Your task to perform on an android device: open app "Duolingo: language lessons" (install if not already installed) and go to login screen Image 0: 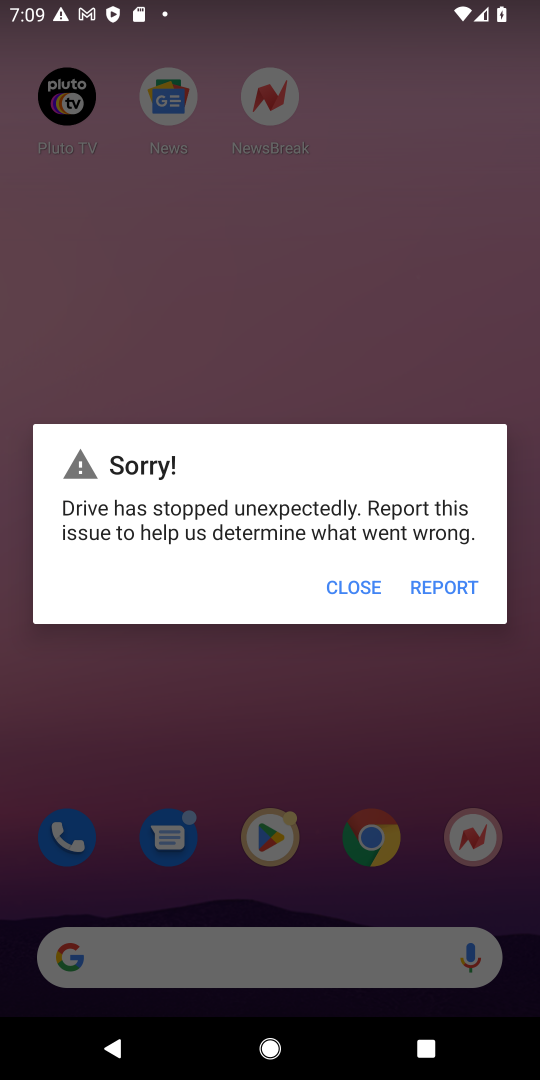
Step 0: click (362, 577)
Your task to perform on an android device: open app "Duolingo: language lessons" (install if not already installed) and go to login screen Image 1: 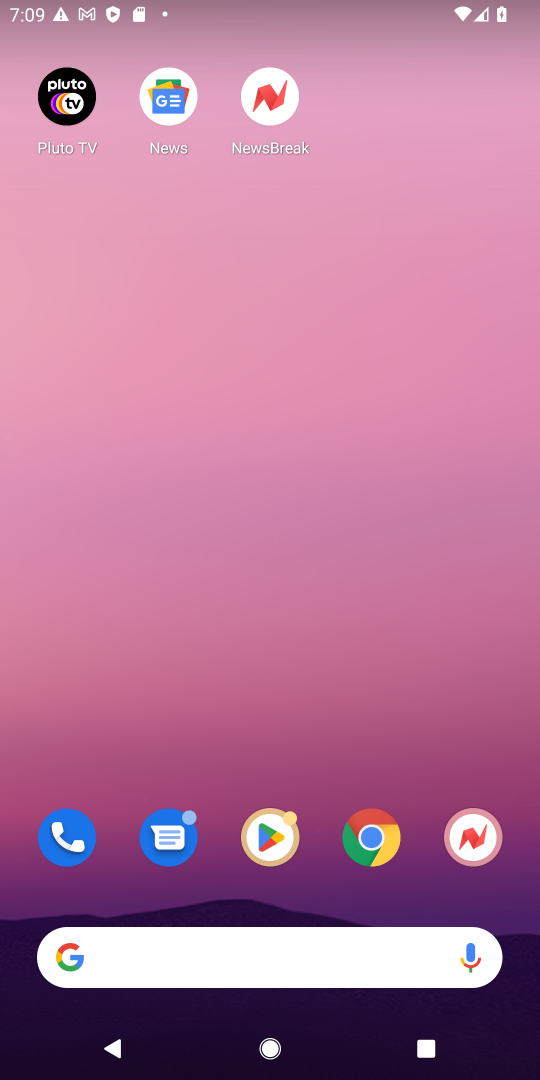
Step 1: drag from (215, 885) to (276, 115)
Your task to perform on an android device: open app "Duolingo: language lessons" (install if not already installed) and go to login screen Image 2: 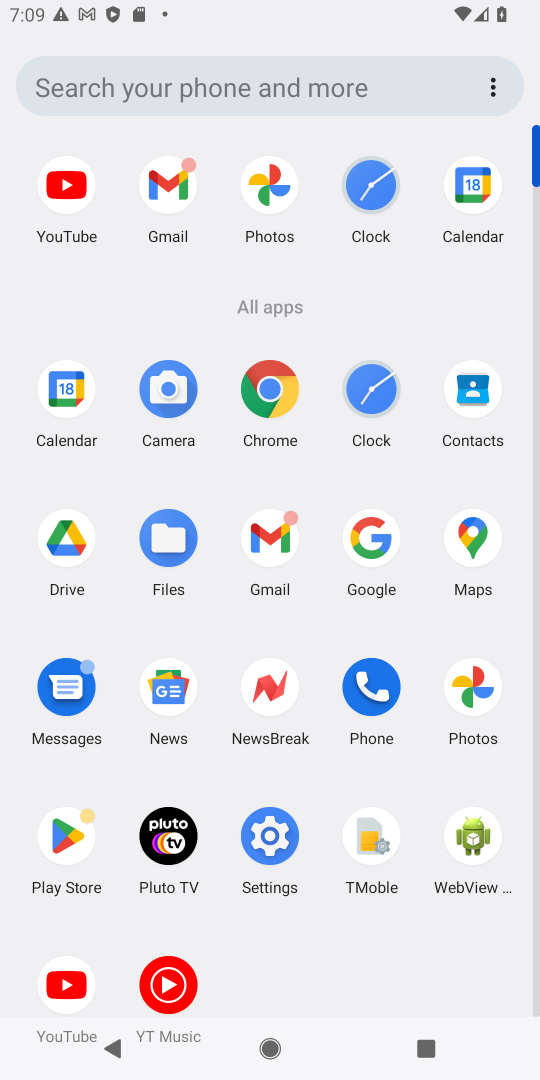
Step 2: click (56, 865)
Your task to perform on an android device: open app "Duolingo: language lessons" (install if not already installed) and go to login screen Image 3: 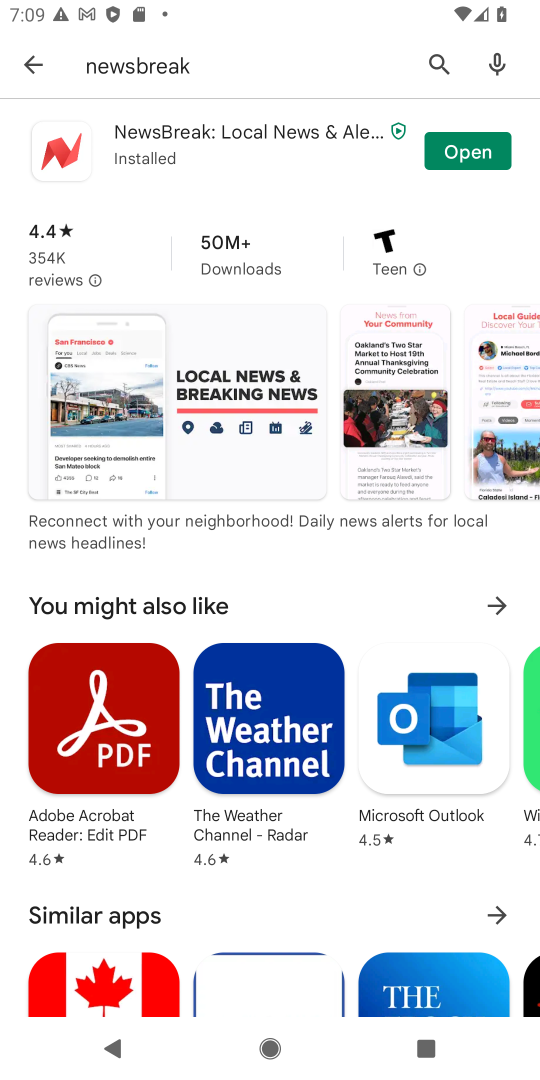
Step 3: click (219, 72)
Your task to perform on an android device: open app "Duolingo: language lessons" (install if not already installed) and go to login screen Image 4: 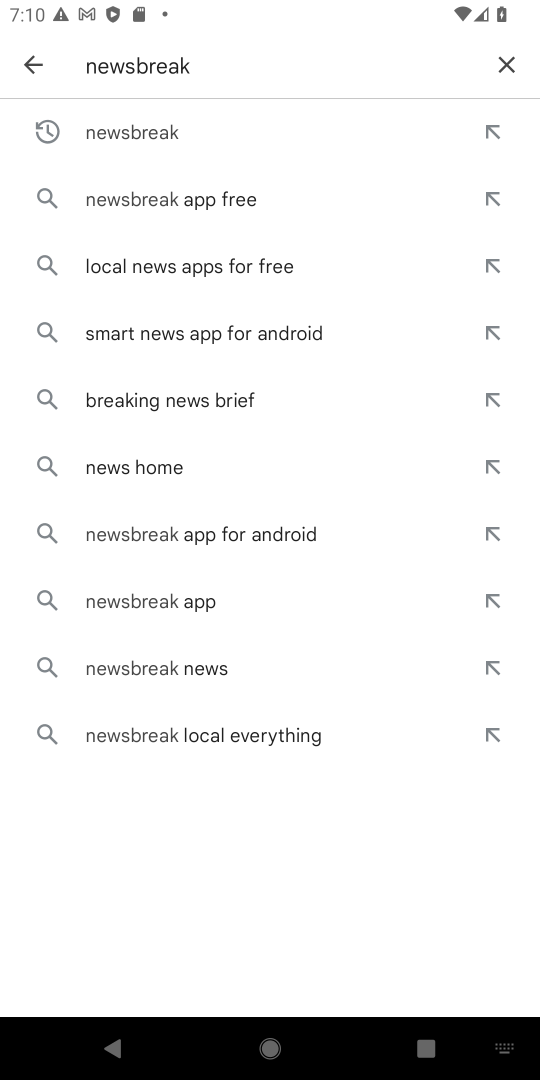
Step 4: click (512, 59)
Your task to perform on an android device: open app "Duolingo: language lessons" (install if not already installed) and go to login screen Image 5: 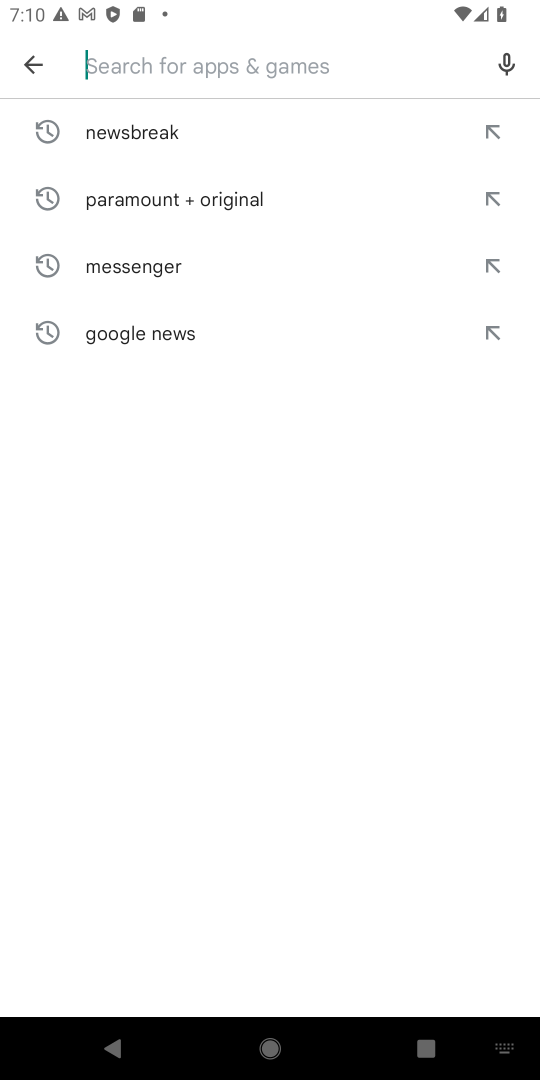
Step 5: type "Duolingo"
Your task to perform on an android device: open app "Duolingo: language lessons" (install if not already installed) and go to login screen Image 6: 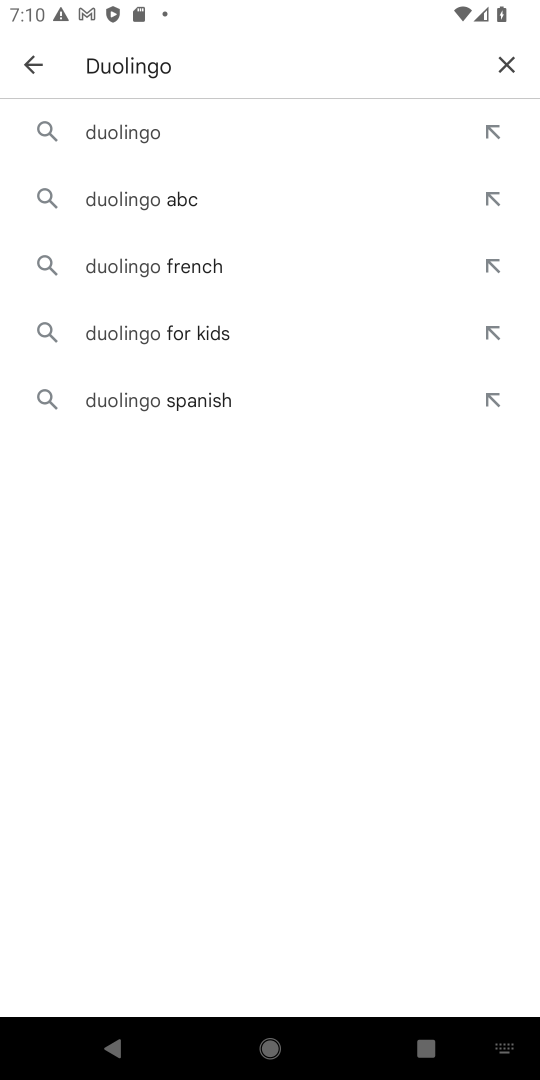
Step 6: click (107, 116)
Your task to perform on an android device: open app "Duolingo: language lessons" (install if not already installed) and go to login screen Image 7: 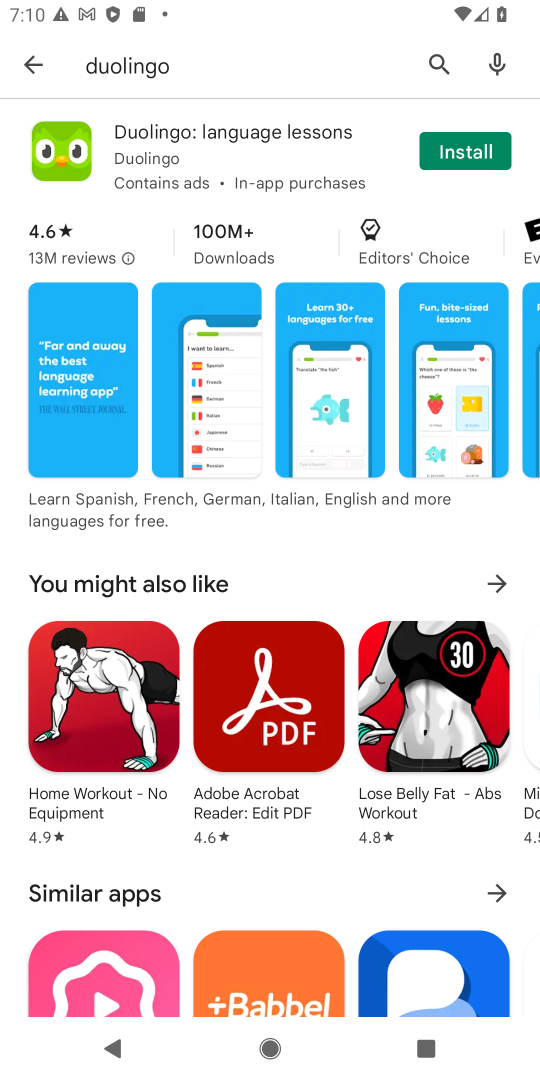
Step 7: click (462, 151)
Your task to perform on an android device: open app "Duolingo: language lessons" (install if not already installed) and go to login screen Image 8: 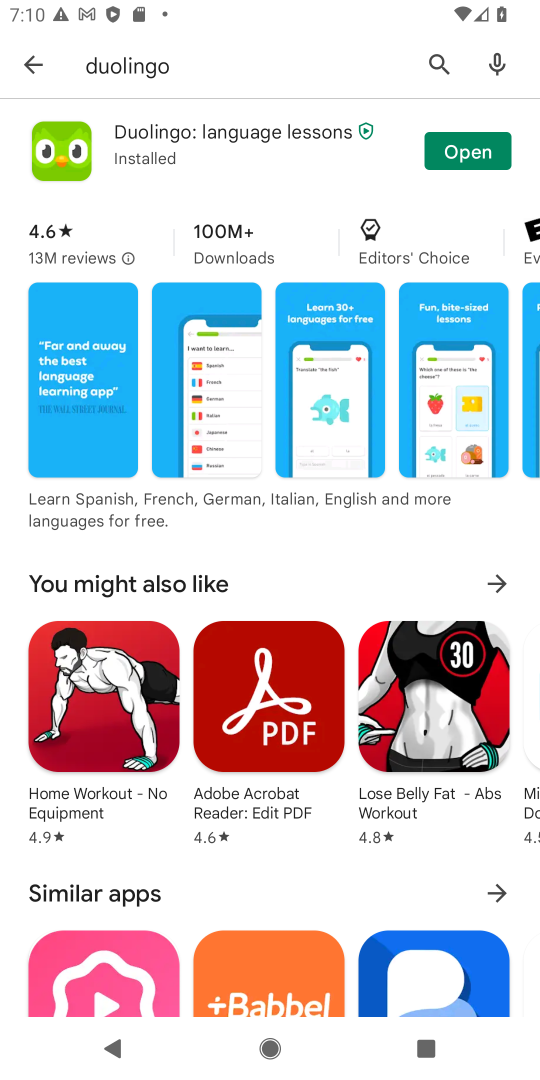
Step 8: click (451, 154)
Your task to perform on an android device: open app "Duolingo: language lessons" (install if not already installed) and go to login screen Image 9: 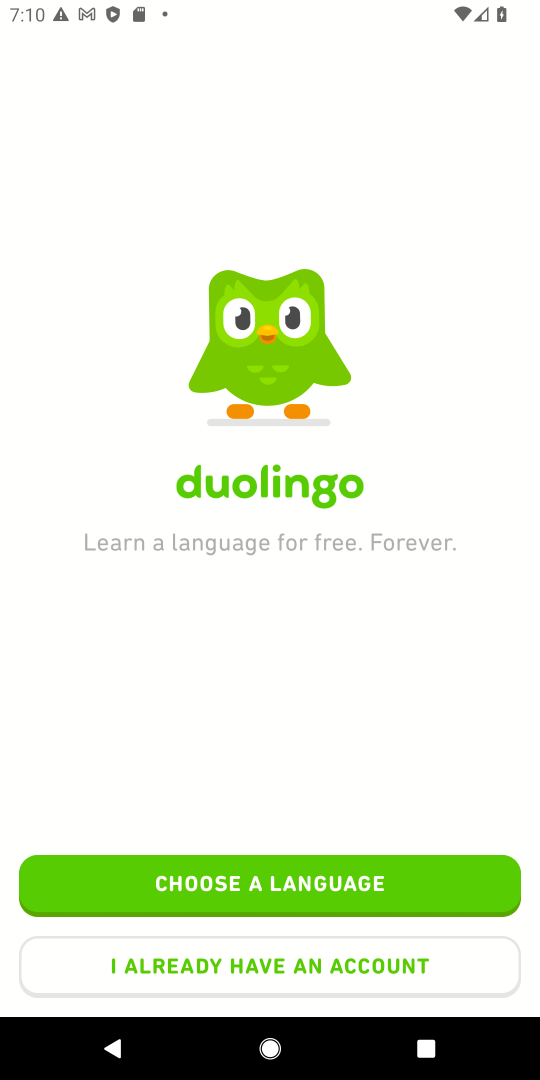
Step 9: click (267, 964)
Your task to perform on an android device: open app "Duolingo: language lessons" (install if not already installed) and go to login screen Image 10: 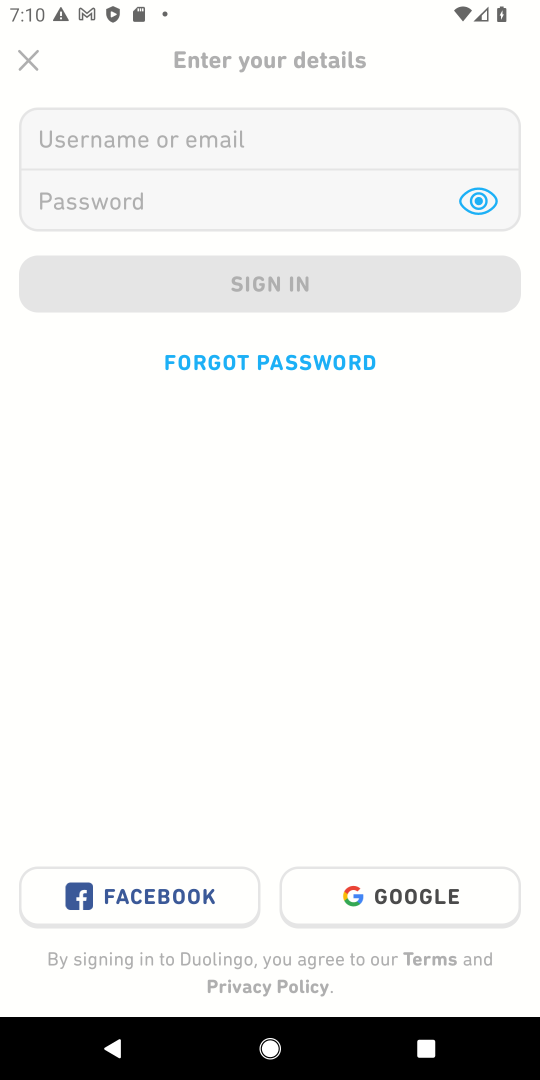
Step 10: click (260, 355)
Your task to perform on an android device: open app "Duolingo: language lessons" (install if not already installed) and go to login screen Image 11: 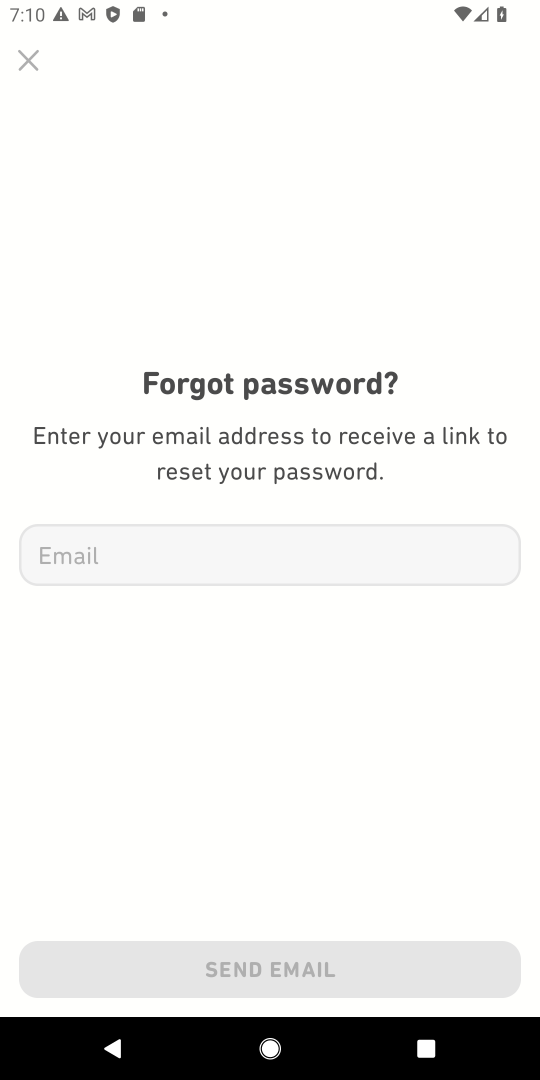
Step 11: task complete